Your task to perform on an android device: Go to settings Image 0: 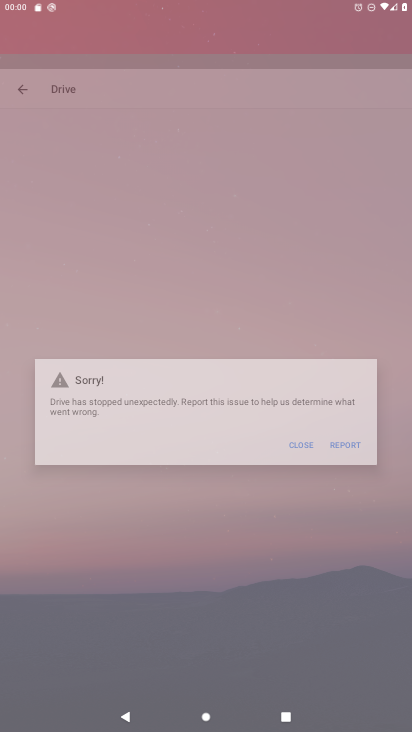
Step 0: click (183, 289)
Your task to perform on an android device: Go to settings Image 1: 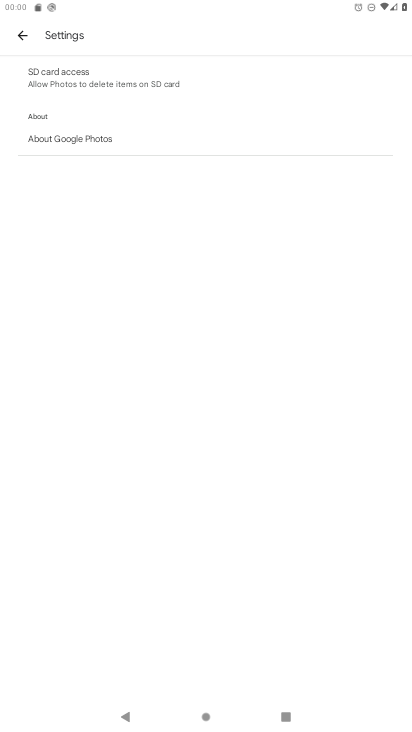
Step 1: task complete